Your task to perform on an android device: Open calendar and show me the third week of next month Image 0: 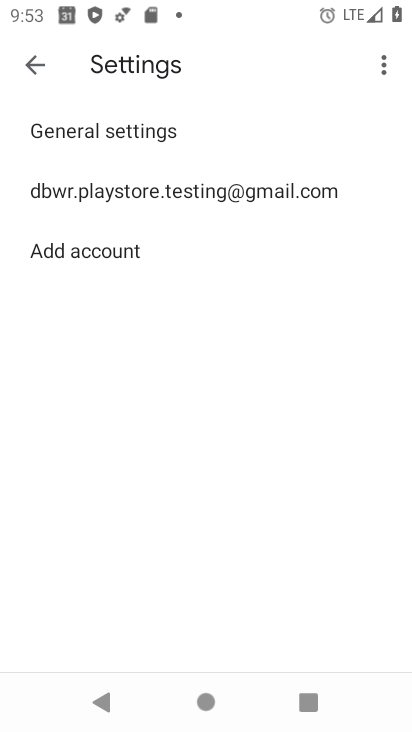
Step 0: press home button
Your task to perform on an android device: Open calendar and show me the third week of next month Image 1: 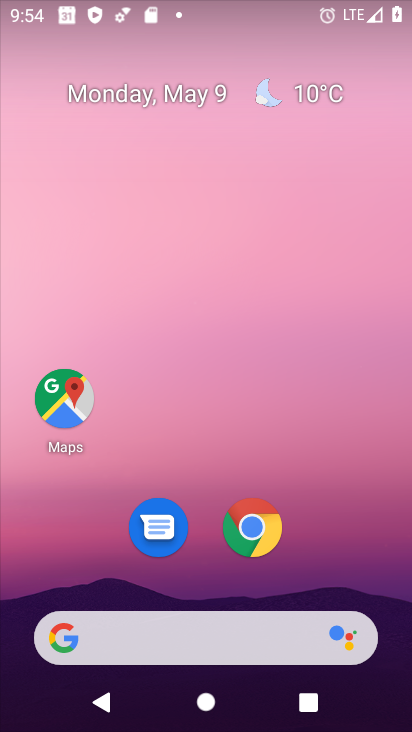
Step 1: drag from (390, 616) to (267, 148)
Your task to perform on an android device: Open calendar and show me the third week of next month Image 2: 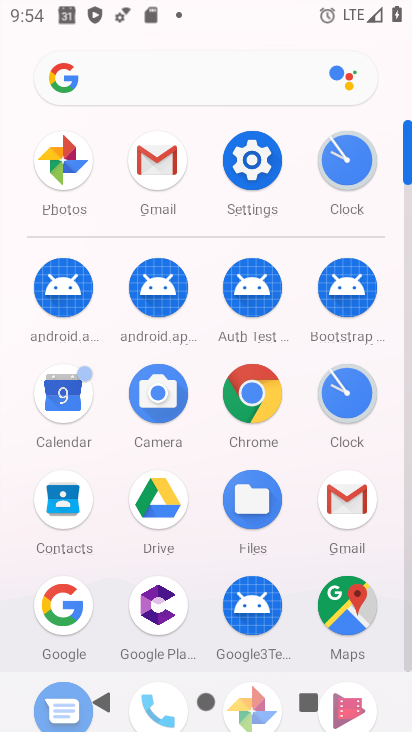
Step 2: click (62, 397)
Your task to perform on an android device: Open calendar and show me the third week of next month Image 3: 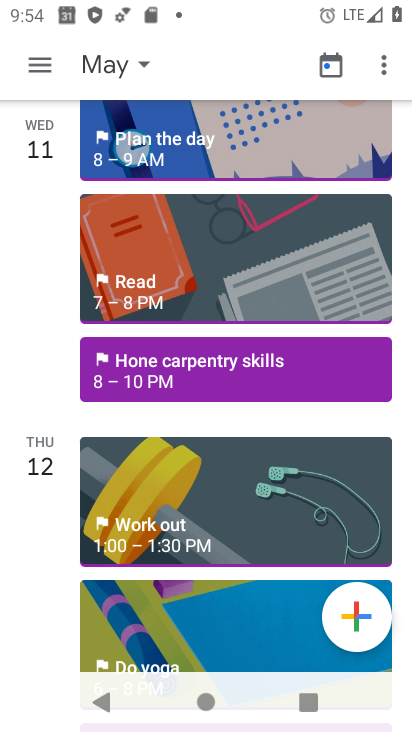
Step 3: click (46, 60)
Your task to perform on an android device: Open calendar and show me the third week of next month Image 4: 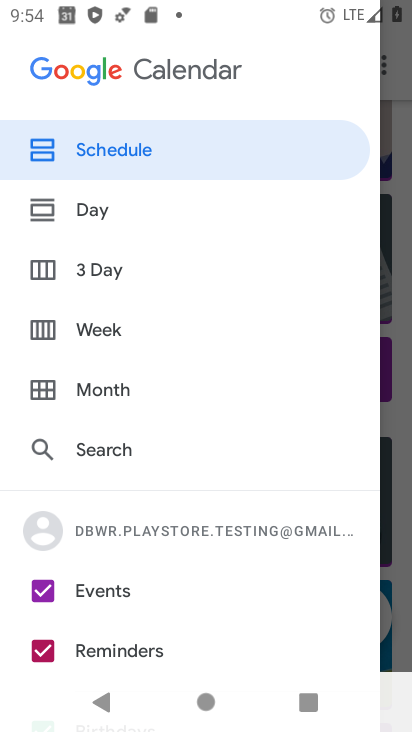
Step 4: click (92, 328)
Your task to perform on an android device: Open calendar and show me the third week of next month Image 5: 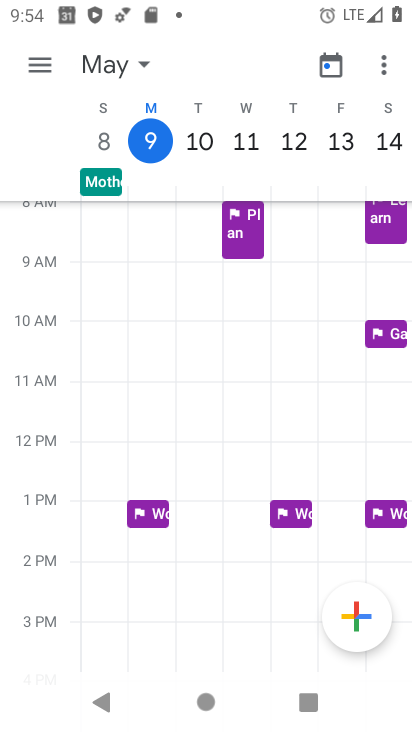
Step 5: click (133, 64)
Your task to perform on an android device: Open calendar and show me the third week of next month Image 6: 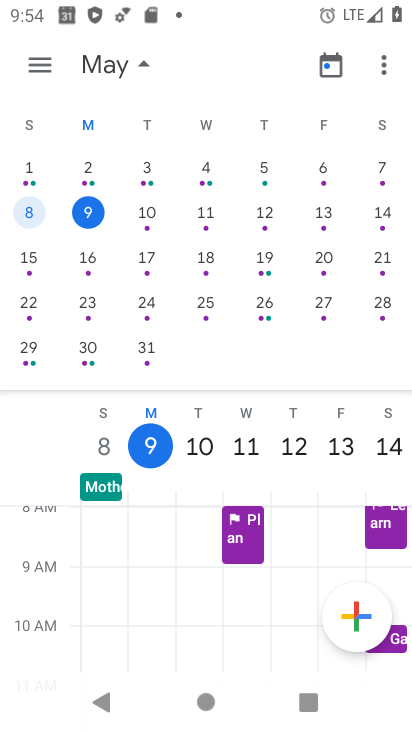
Step 6: drag from (380, 277) to (39, 222)
Your task to perform on an android device: Open calendar and show me the third week of next month Image 7: 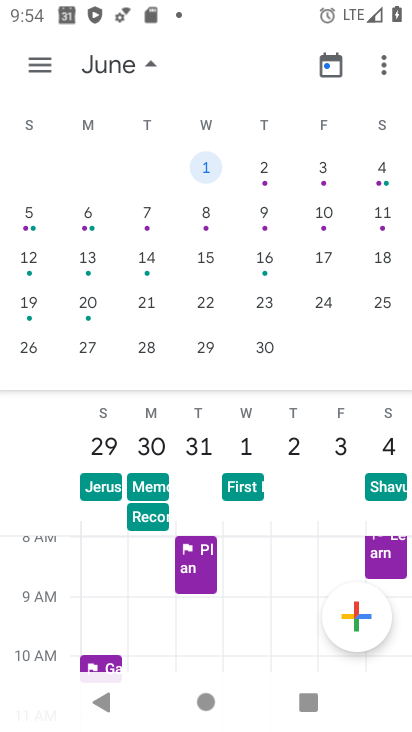
Step 7: click (29, 254)
Your task to perform on an android device: Open calendar and show me the third week of next month Image 8: 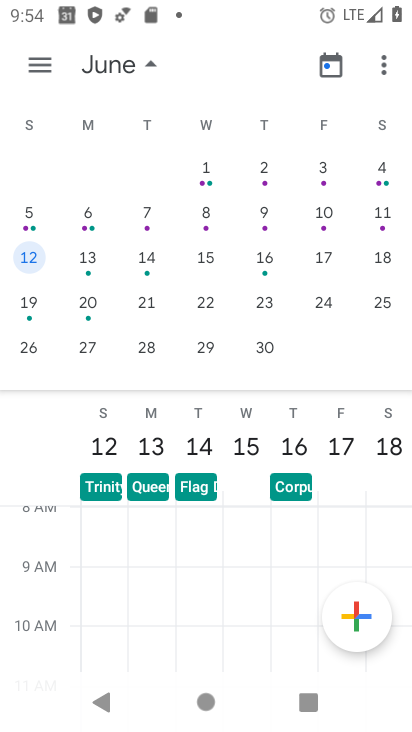
Step 8: task complete